Your task to perform on an android device: turn on the 12-hour format for clock Image 0: 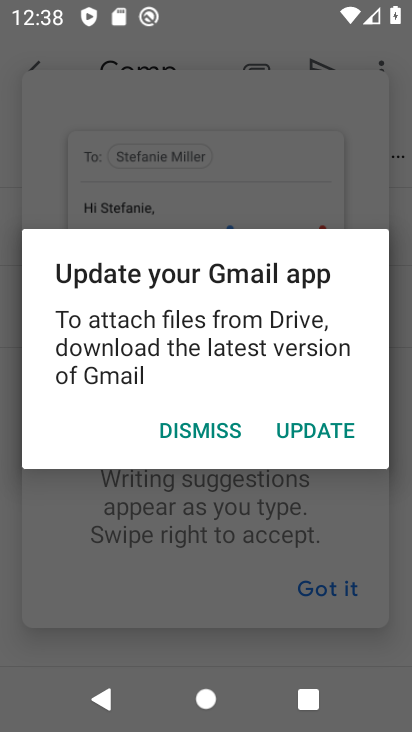
Step 0: press home button
Your task to perform on an android device: turn on the 12-hour format for clock Image 1: 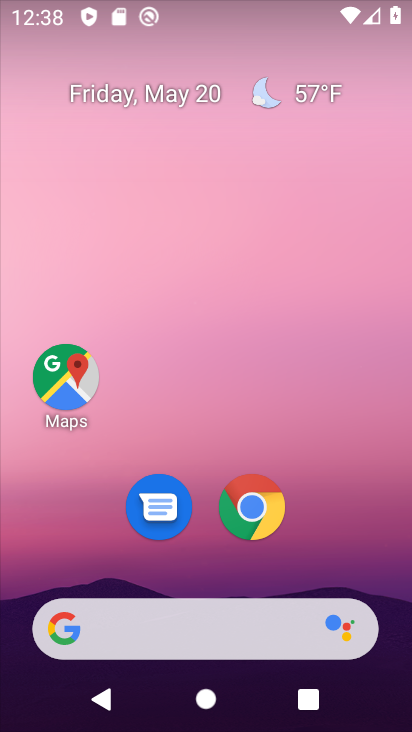
Step 1: drag from (376, 488) to (258, 17)
Your task to perform on an android device: turn on the 12-hour format for clock Image 2: 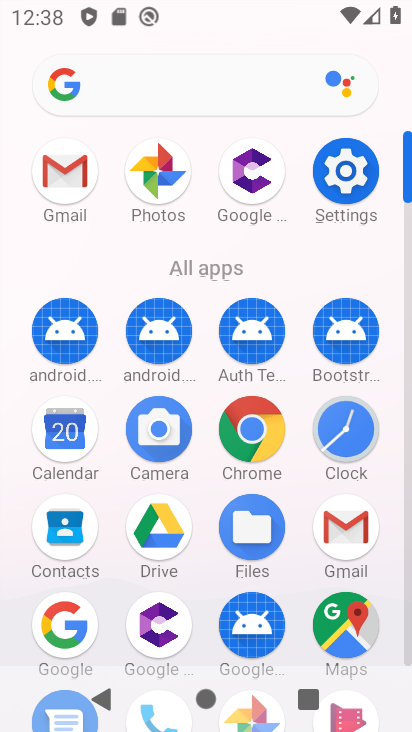
Step 2: click (365, 409)
Your task to perform on an android device: turn on the 12-hour format for clock Image 3: 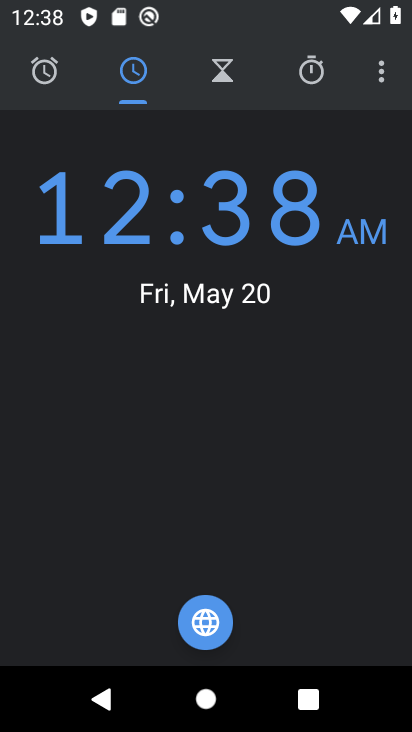
Step 3: click (386, 69)
Your task to perform on an android device: turn on the 12-hour format for clock Image 4: 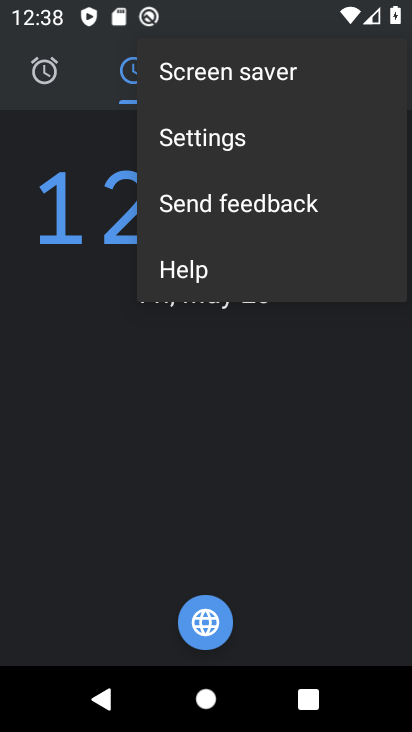
Step 4: click (226, 144)
Your task to perform on an android device: turn on the 12-hour format for clock Image 5: 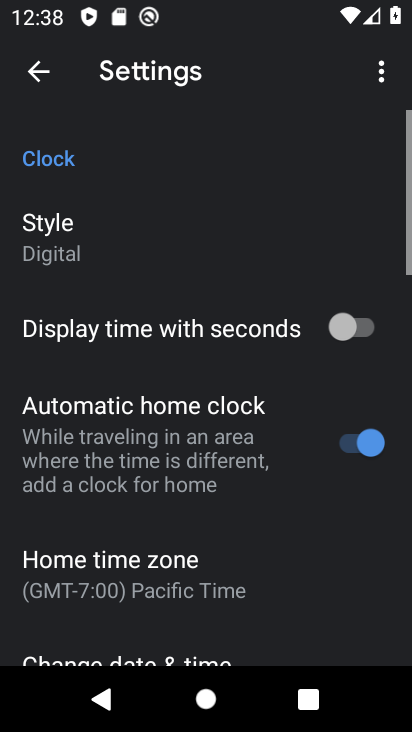
Step 5: drag from (291, 568) to (190, 77)
Your task to perform on an android device: turn on the 12-hour format for clock Image 6: 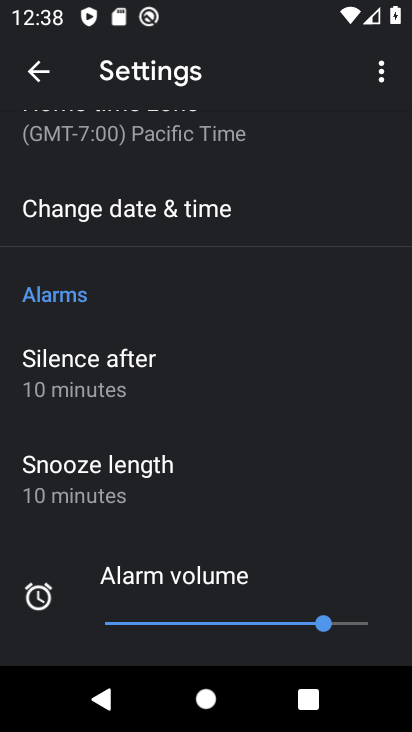
Step 6: drag from (171, 538) to (212, 622)
Your task to perform on an android device: turn on the 12-hour format for clock Image 7: 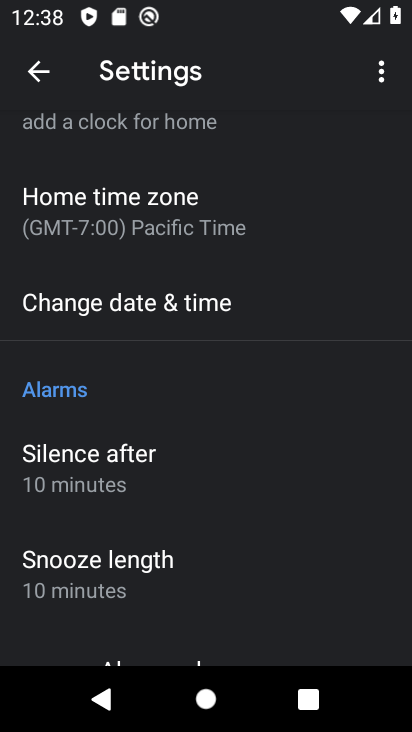
Step 7: click (169, 306)
Your task to perform on an android device: turn on the 12-hour format for clock Image 8: 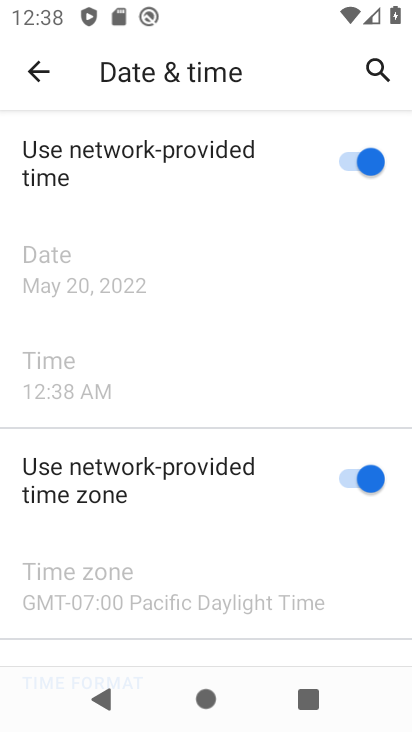
Step 8: task complete